Your task to perform on an android device: Open calendar and show me the fourth week of next month Image 0: 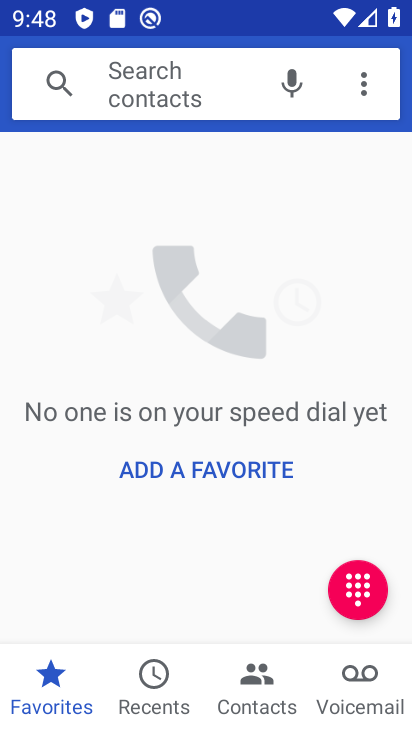
Step 0: press home button
Your task to perform on an android device: Open calendar and show me the fourth week of next month Image 1: 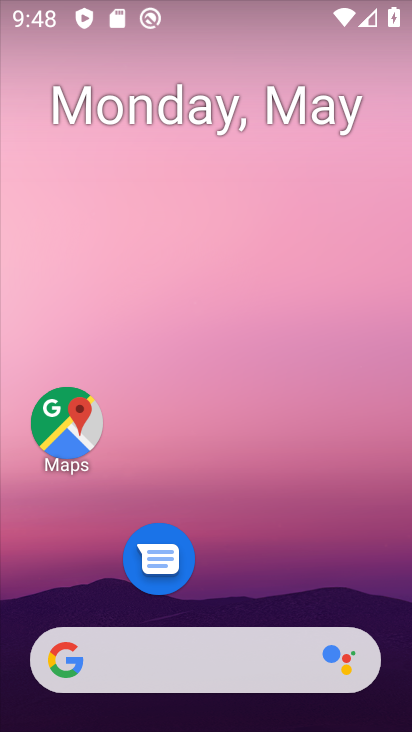
Step 1: click (110, 115)
Your task to perform on an android device: Open calendar and show me the fourth week of next month Image 2: 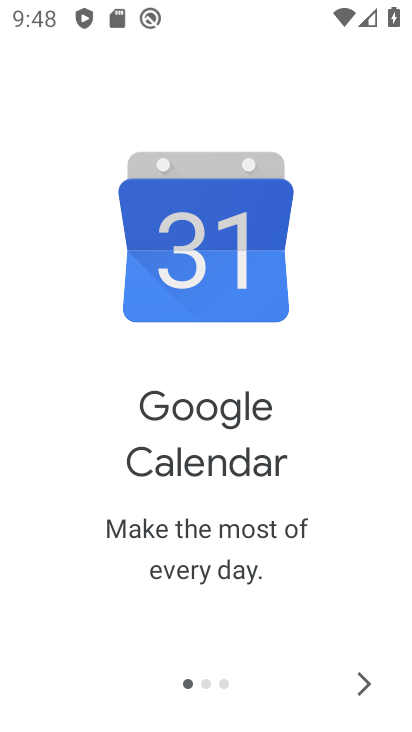
Step 2: click (364, 695)
Your task to perform on an android device: Open calendar and show me the fourth week of next month Image 3: 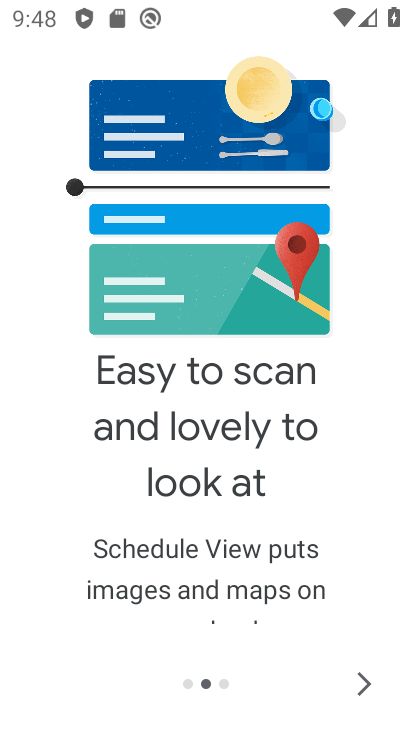
Step 3: click (364, 695)
Your task to perform on an android device: Open calendar and show me the fourth week of next month Image 4: 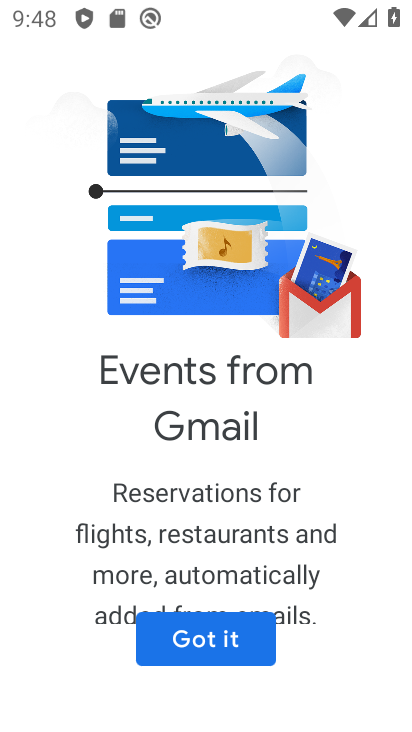
Step 4: click (189, 645)
Your task to perform on an android device: Open calendar and show me the fourth week of next month Image 5: 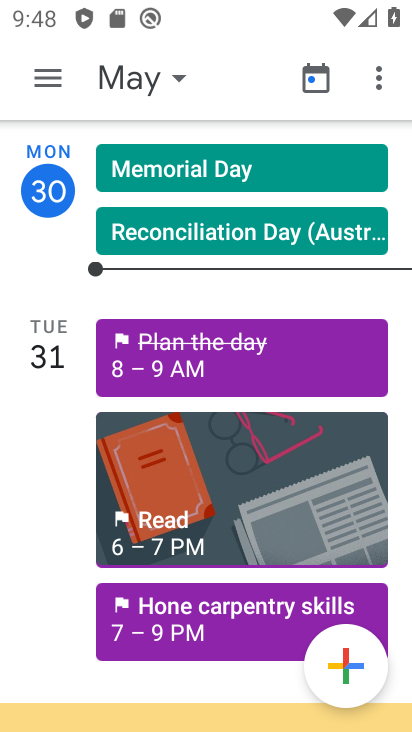
Step 5: click (125, 97)
Your task to perform on an android device: Open calendar and show me the fourth week of next month Image 6: 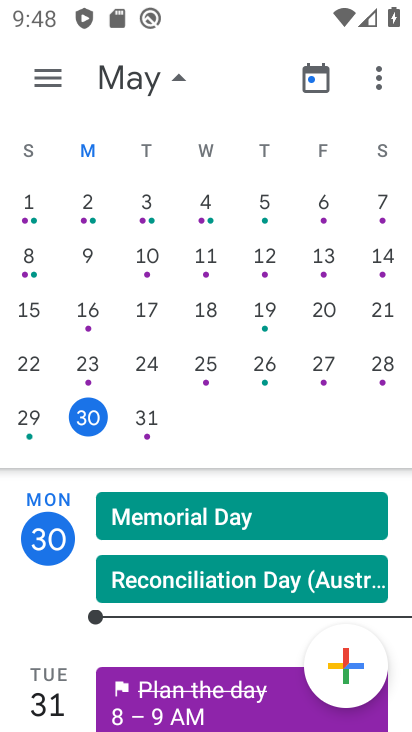
Step 6: drag from (349, 402) to (72, 353)
Your task to perform on an android device: Open calendar and show me the fourth week of next month Image 7: 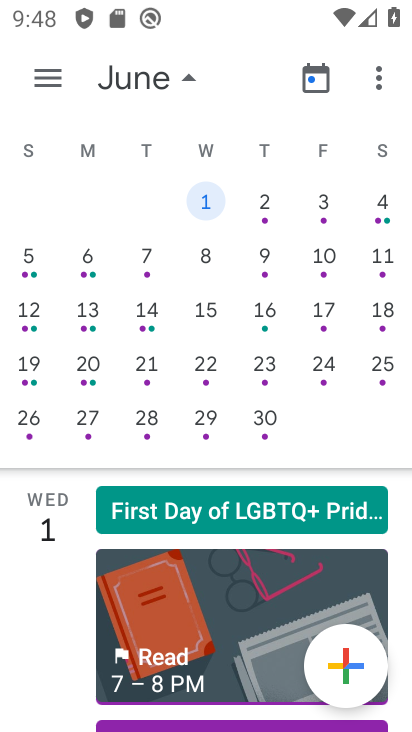
Step 7: click (206, 370)
Your task to perform on an android device: Open calendar and show me the fourth week of next month Image 8: 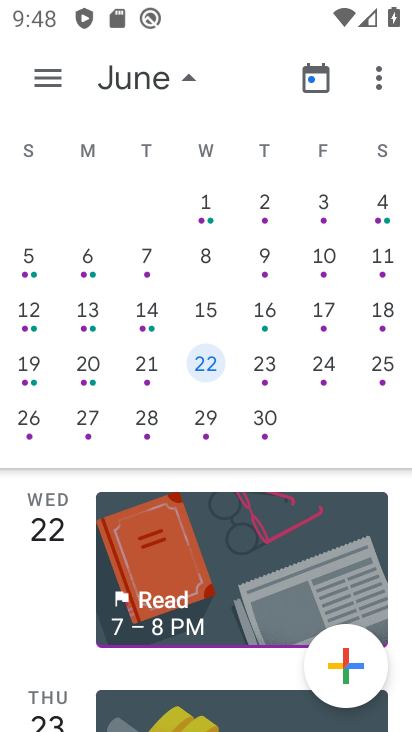
Step 8: task complete